Your task to perform on an android device: remove spam from my inbox in the gmail app Image 0: 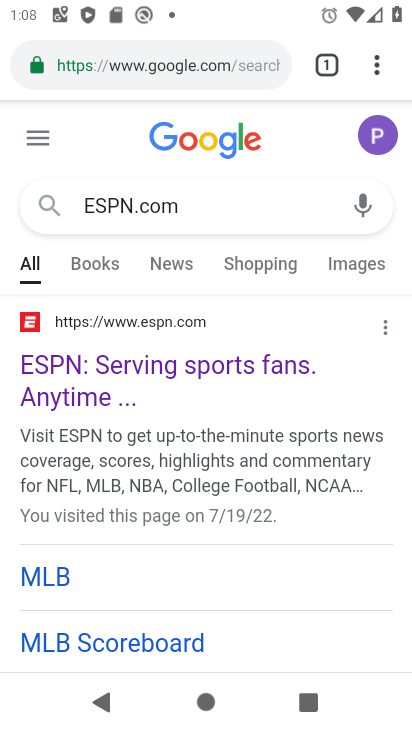
Step 0: press home button
Your task to perform on an android device: remove spam from my inbox in the gmail app Image 1: 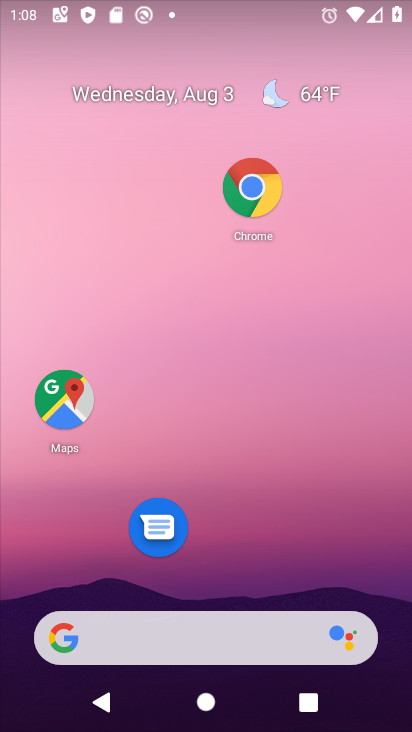
Step 1: drag from (241, 598) to (265, 50)
Your task to perform on an android device: remove spam from my inbox in the gmail app Image 2: 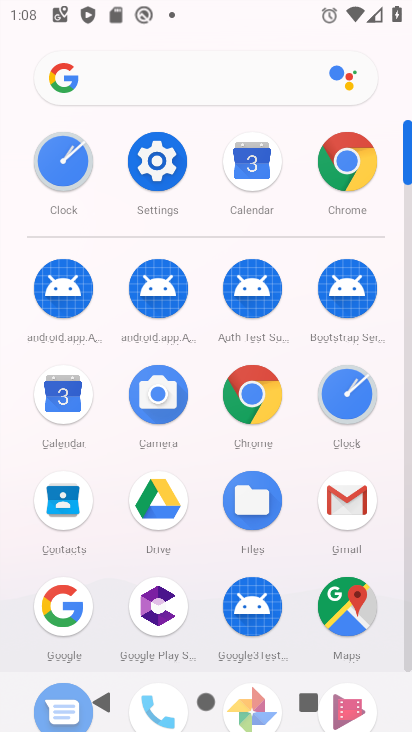
Step 2: click (357, 522)
Your task to perform on an android device: remove spam from my inbox in the gmail app Image 3: 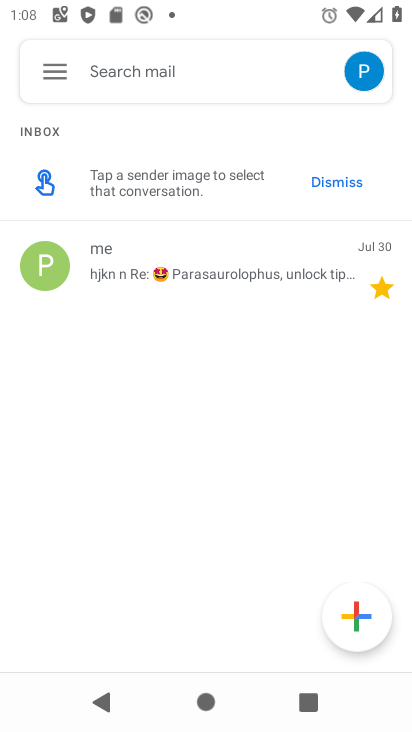
Step 3: click (44, 66)
Your task to perform on an android device: remove spam from my inbox in the gmail app Image 4: 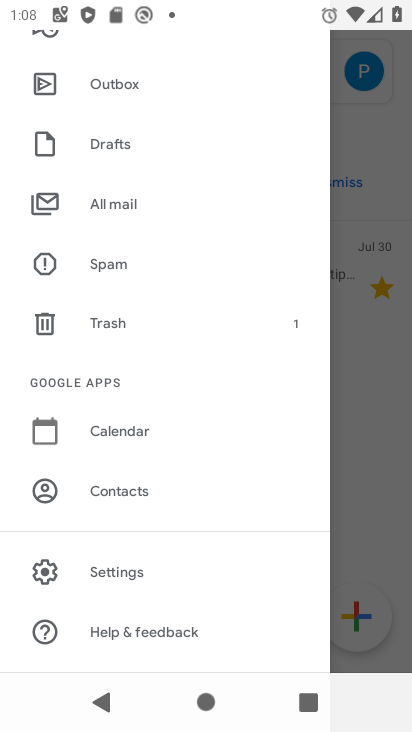
Step 4: click (130, 268)
Your task to perform on an android device: remove spam from my inbox in the gmail app Image 5: 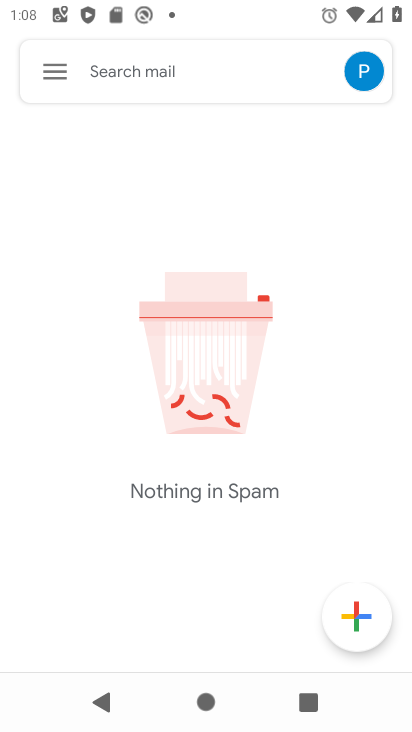
Step 5: task complete